Your task to perform on an android device: Go to calendar. Show me events next week Image 0: 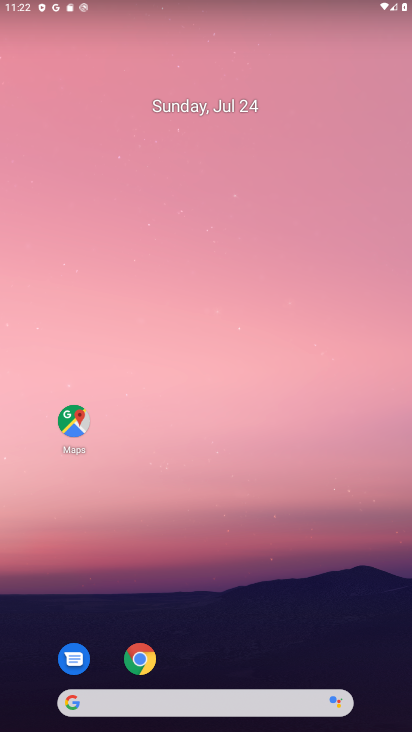
Step 0: drag from (314, 650) to (347, 112)
Your task to perform on an android device: Go to calendar. Show me events next week Image 1: 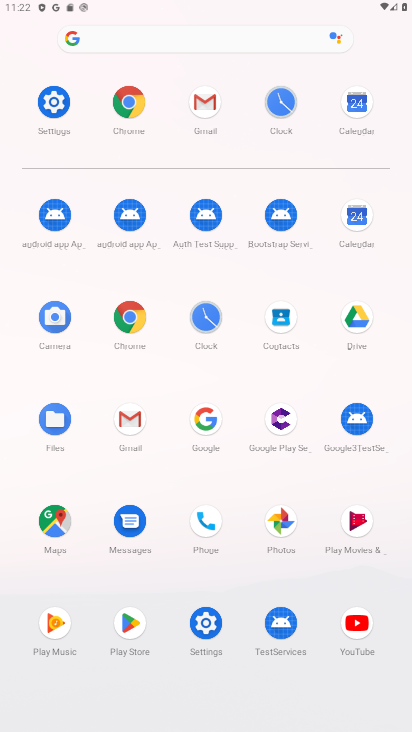
Step 1: click (352, 211)
Your task to perform on an android device: Go to calendar. Show me events next week Image 2: 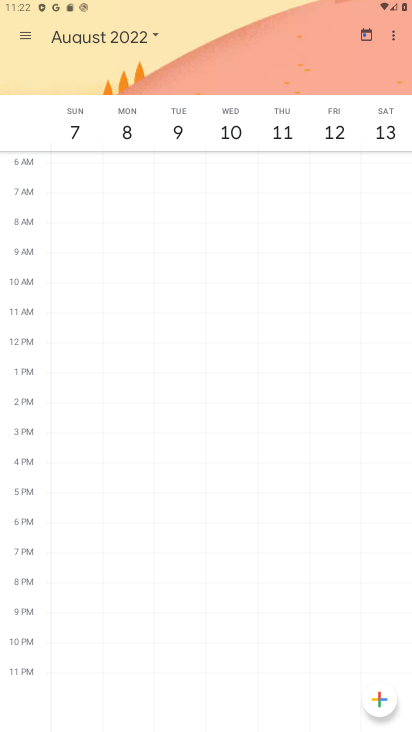
Step 2: click (37, 30)
Your task to perform on an android device: Go to calendar. Show me events next week Image 3: 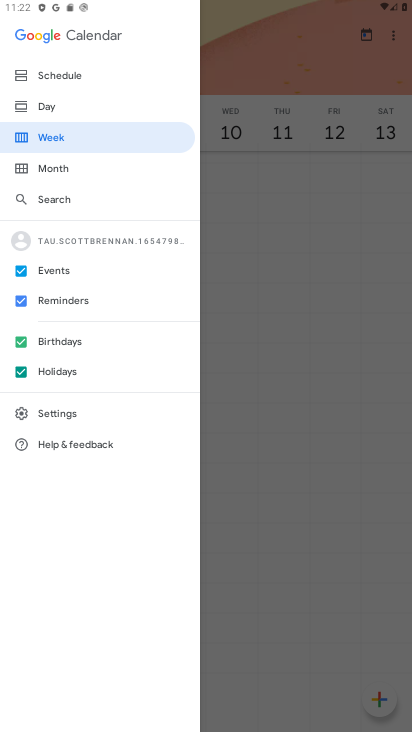
Step 3: click (49, 152)
Your task to perform on an android device: Go to calendar. Show me events next week Image 4: 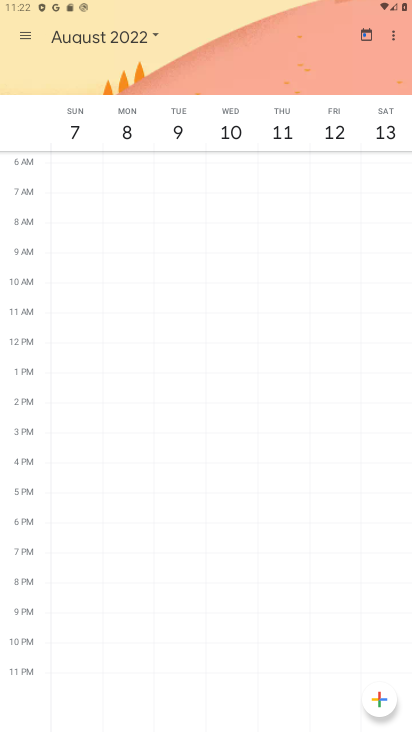
Step 4: task complete